Your task to perform on an android device: check google app version Image 0: 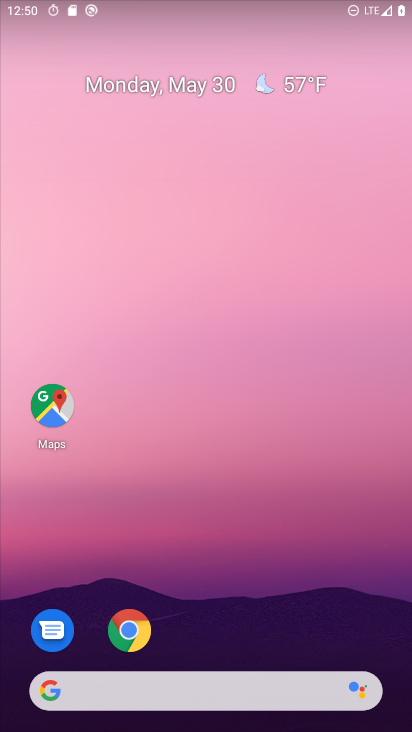
Step 0: drag from (267, 702) to (209, 269)
Your task to perform on an android device: check google app version Image 1: 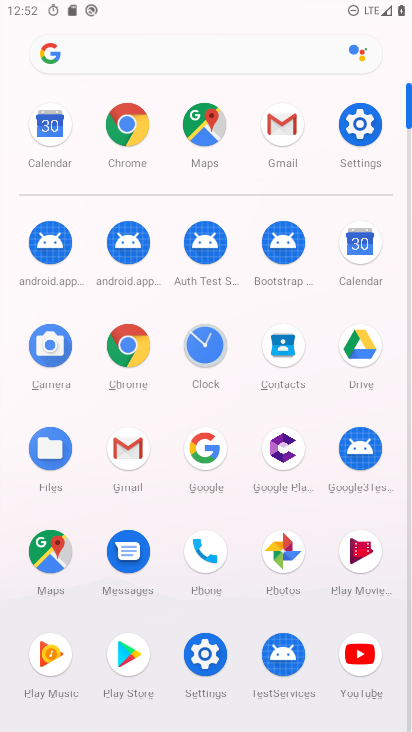
Step 1: click (146, 137)
Your task to perform on an android device: check google app version Image 2: 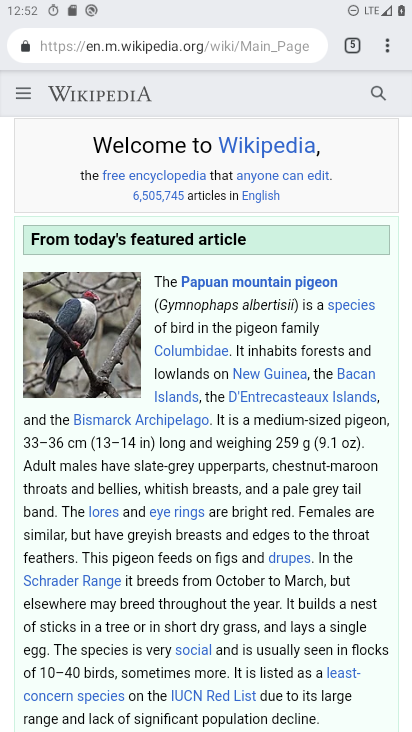
Step 2: click (390, 61)
Your task to perform on an android device: check google app version Image 3: 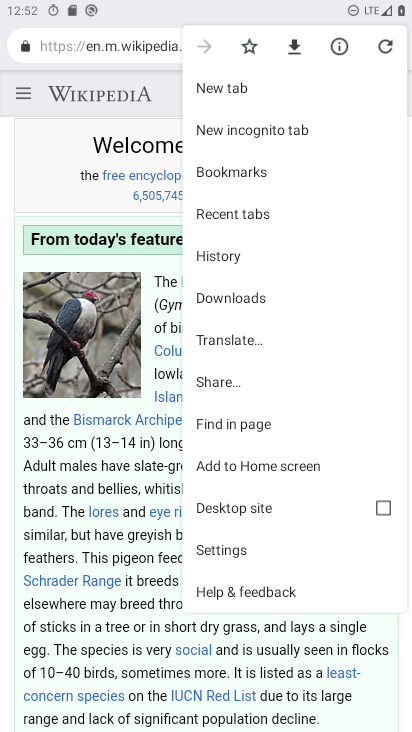
Step 3: click (256, 550)
Your task to perform on an android device: check google app version Image 4: 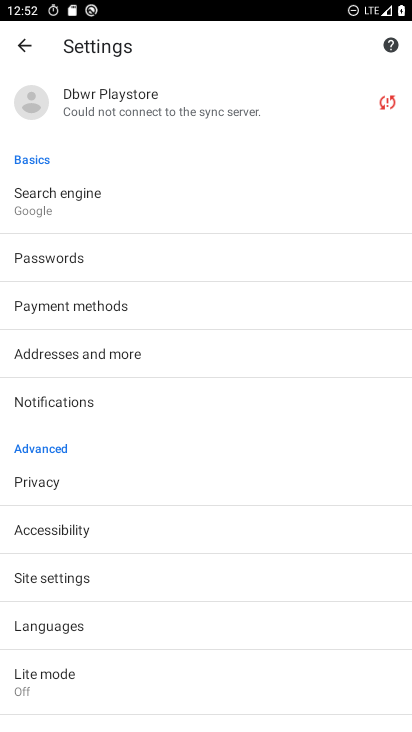
Step 4: drag from (198, 564) to (166, 152)
Your task to perform on an android device: check google app version Image 5: 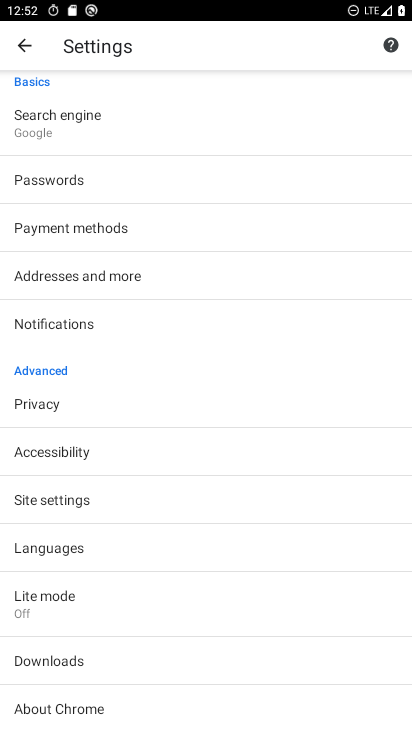
Step 5: click (87, 703)
Your task to perform on an android device: check google app version Image 6: 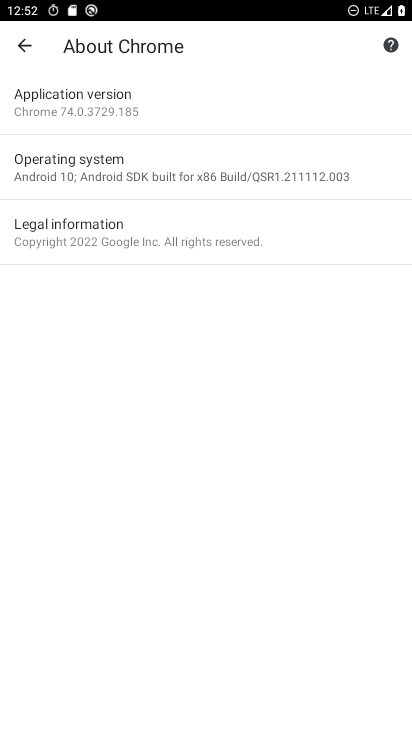
Step 6: click (109, 106)
Your task to perform on an android device: check google app version Image 7: 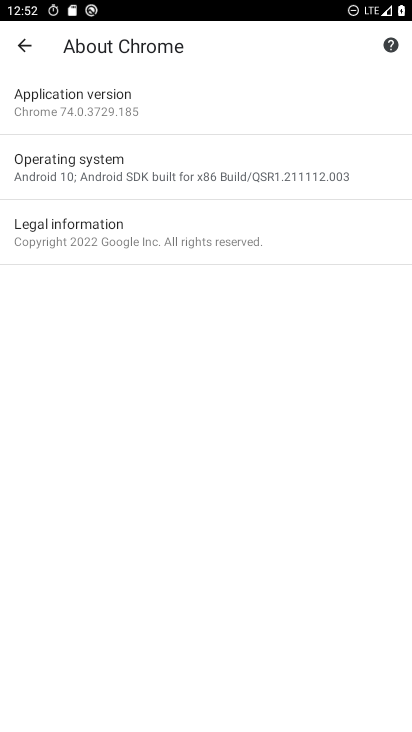
Step 7: task complete